Your task to perform on an android device: Check the weather Image 0: 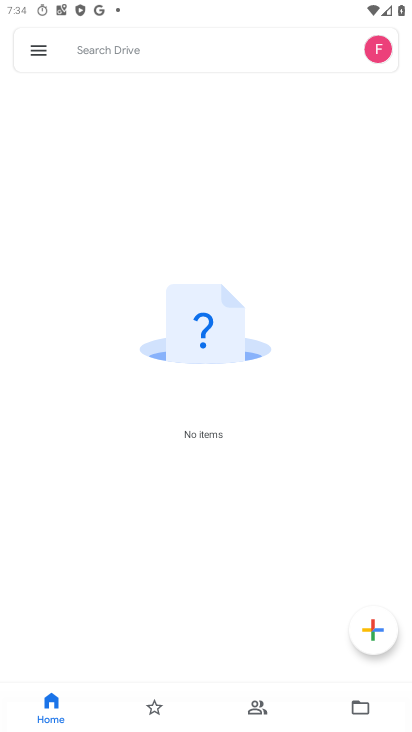
Step 0: press home button
Your task to perform on an android device: Check the weather Image 1: 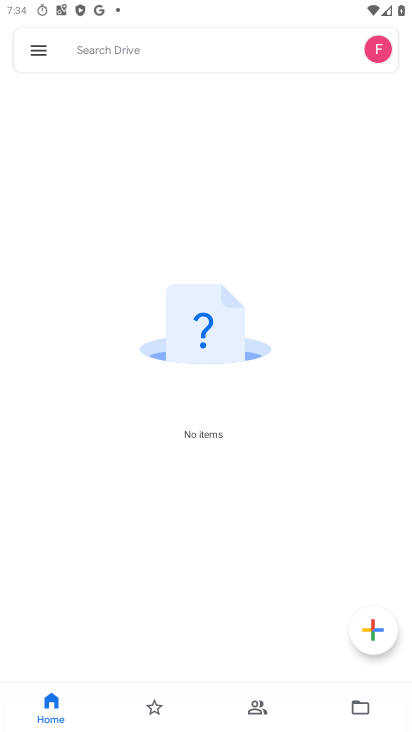
Step 1: drag from (399, 647) to (215, 1)
Your task to perform on an android device: Check the weather Image 2: 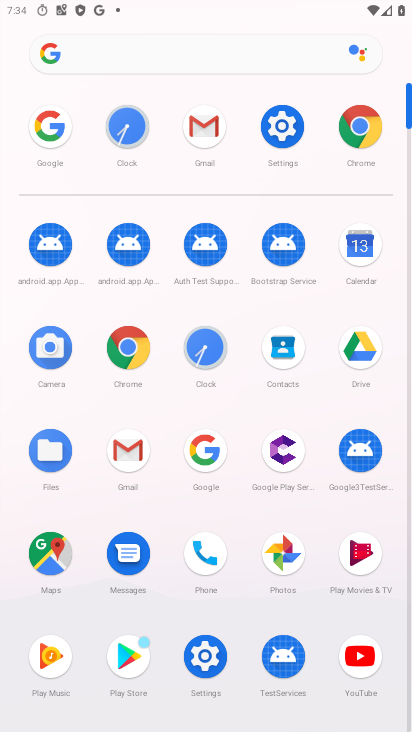
Step 2: click (202, 470)
Your task to perform on an android device: Check the weather Image 3: 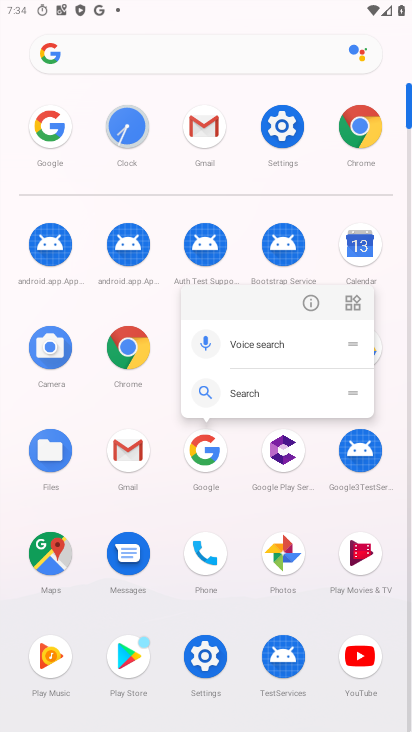
Step 3: click (202, 470)
Your task to perform on an android device: Check the weather Image 4: 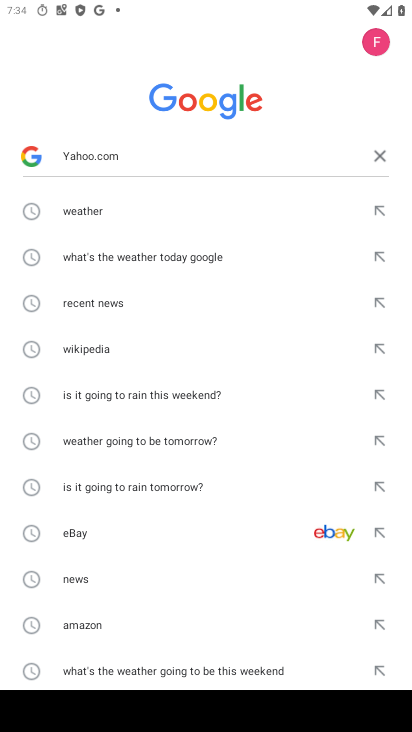
Step 4: click (82, 211)
Your task to perform on an android device: Check the weather Image 5: 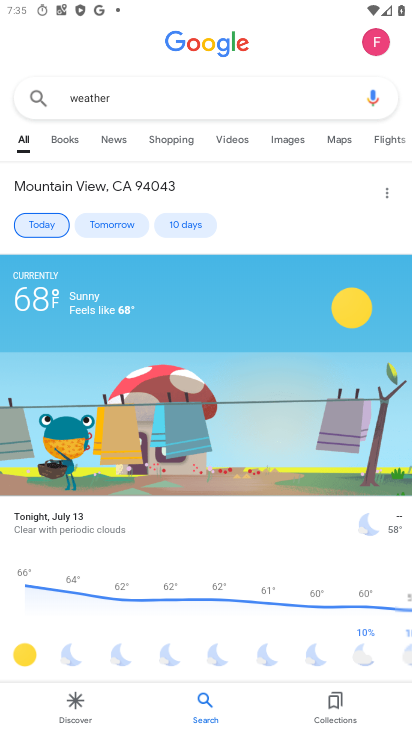
Step 5: task complete